Your task to perform on an android device: Open Youtube and go to "Your channel" Image 0: 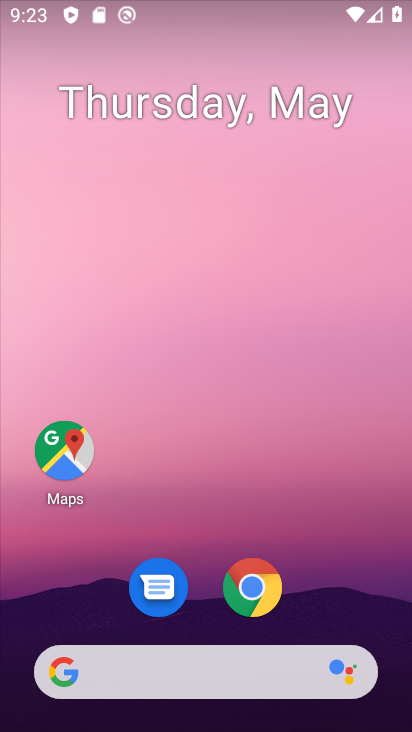
Step 0: drag from (304, 613) to (274, 296)
Your task to perform on an android device: Open Youtube and go to "Your channel" Image 1: 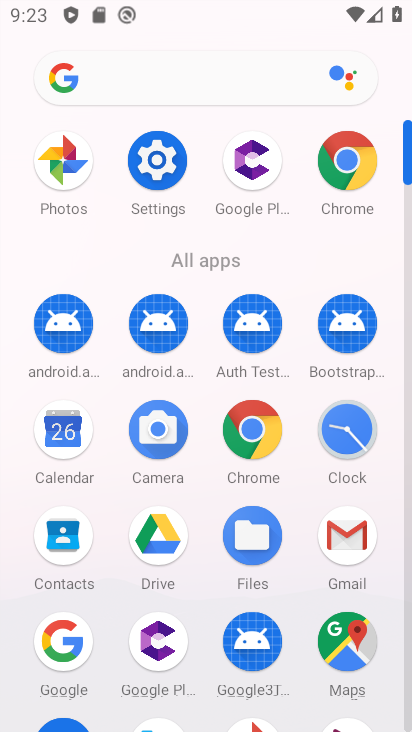
Step 1: drag from (296, 498) to (278, 290)
Your task to perform on an android device: Open Youtube and go to "Your channel" Image 2: 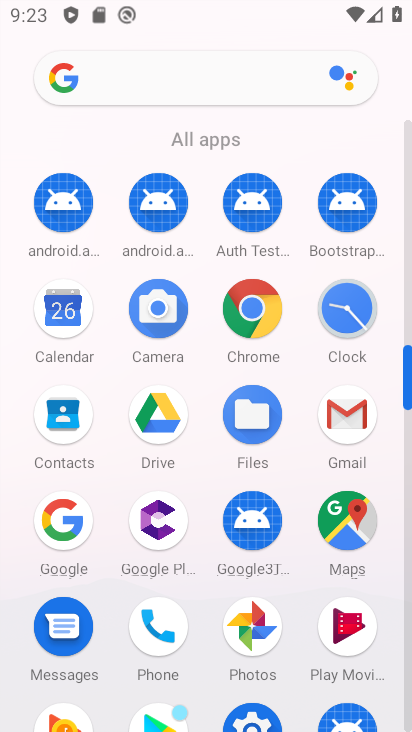
Step 2: drag from (293, 534) to (260, 305)
Your task to perform on an android device: Open Youtube and go to "Your channel" Image 3: 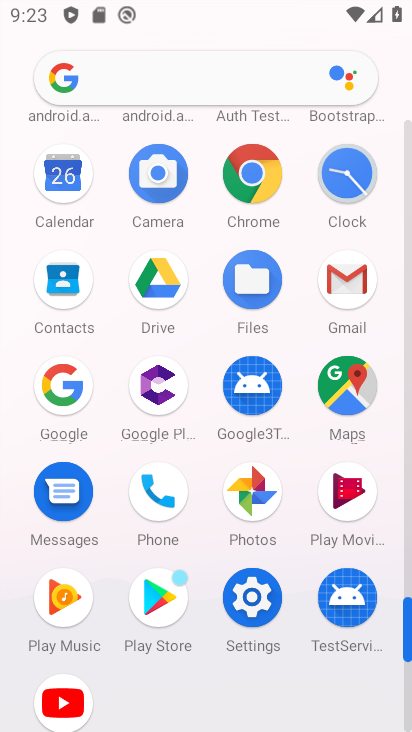
Step 3: click (72, 695)
Your task to perform on an android device: Open Youtube and go to "Your channel" Image 4: 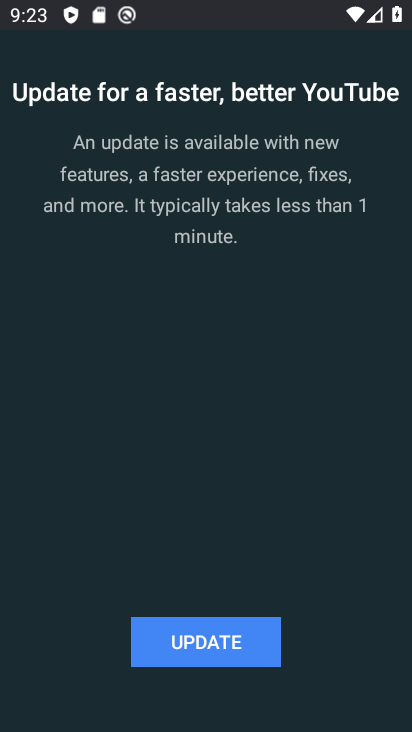
Step 4: click (207, 667)
Your task to perform on an android device: Open Youtube and go to "Your channel" Image 5: 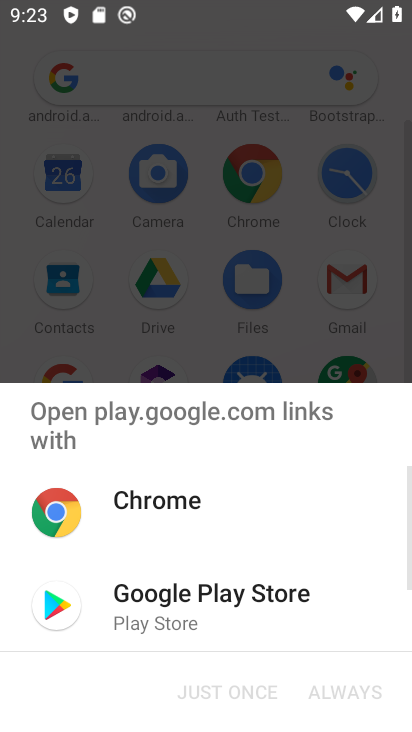
Step 5: click (191, 610)
Your task to perform on an android device: Open Youtube and go to "Your channel" Image 6: 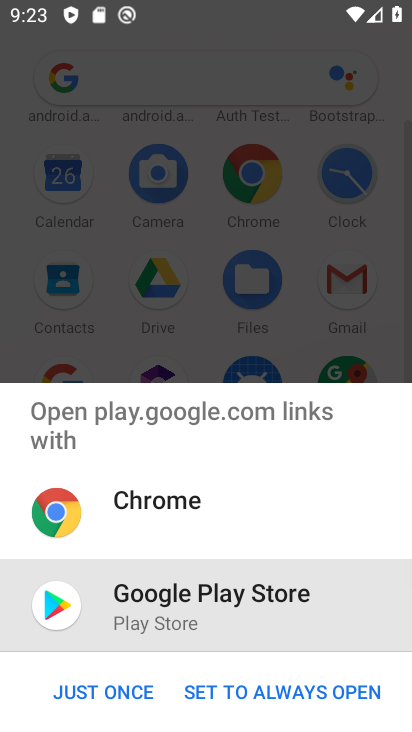
Step 6: click (123, 692)
Your task to perform on an android device: Open Youtube and go to "Your channel" Image 7: 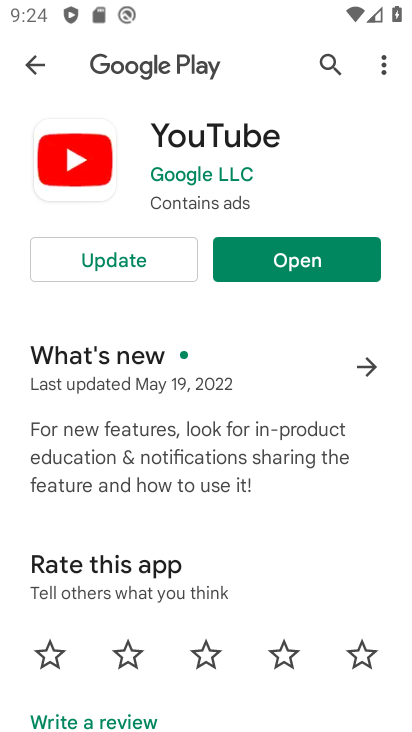
Step 7: click (118, 261)
Your task to perform on an android device: Open Youtube and go to "Your channel" Image 8: 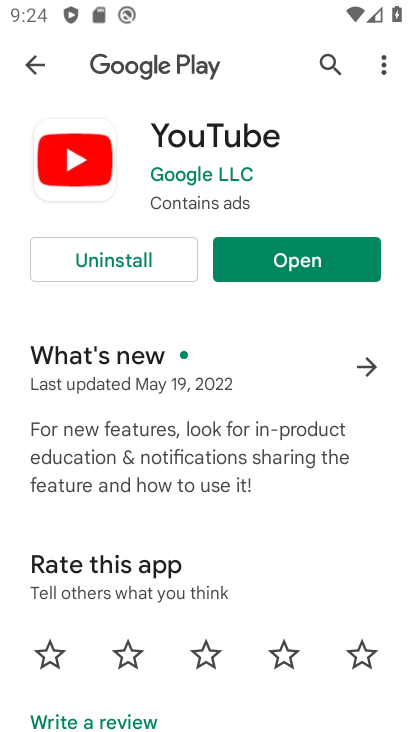
Step 8: click (292, 263)
Your task to perform on an android device: Open Youtube and go to "Your channel" Image 9: 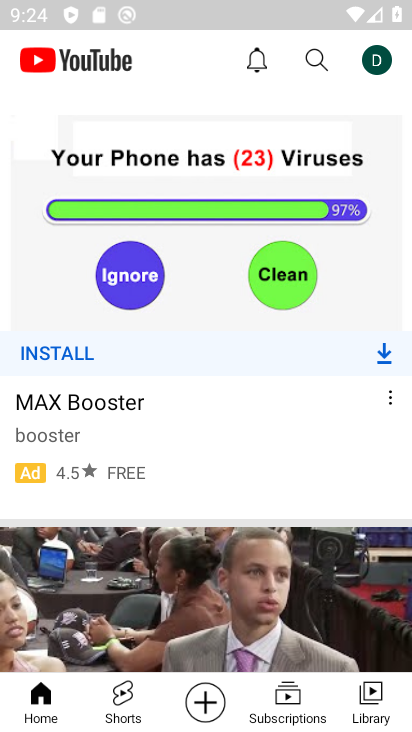
Step 9: click (379, 52)
Your task to perform on an android device: Open Youtube and go to "Your channel" Image 10: 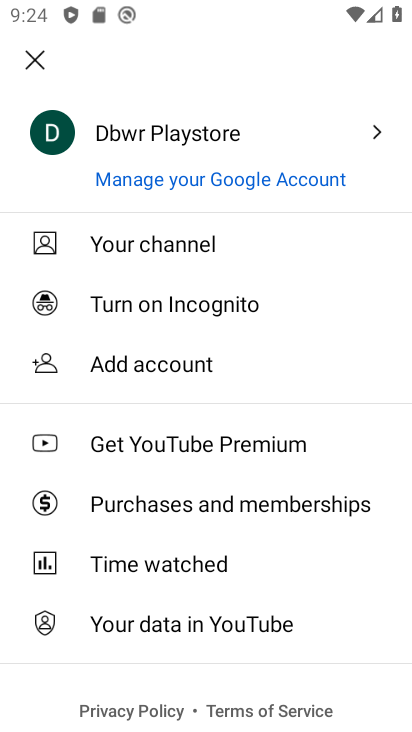
Step 10: click (162, 242)
Your task to perform on an android device: Open Youtube and go to "Your channel" Image 11: 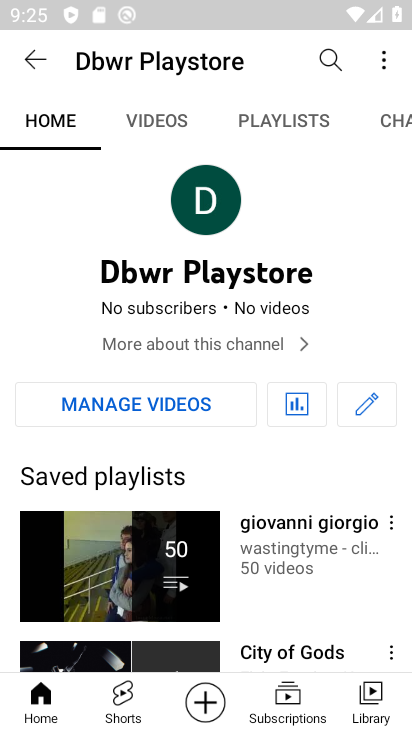
Step 11: task complete